Your task to perform on an android device: Search for Italian restaurants on Maps Image 0: 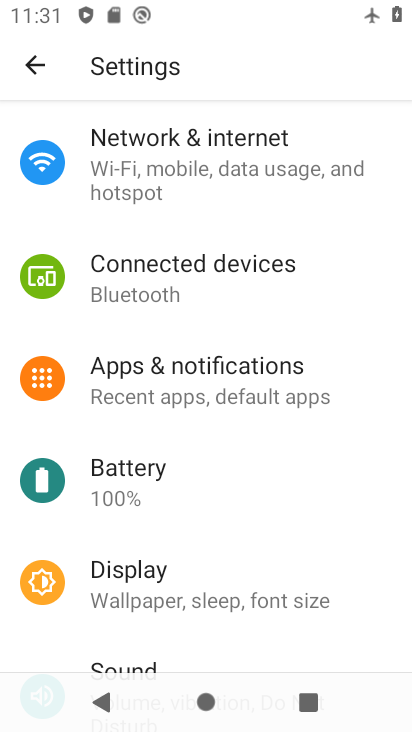
Step 0: press home button
Your task to perform on an android device: Search for Italian restaurants on Maps Image 1: 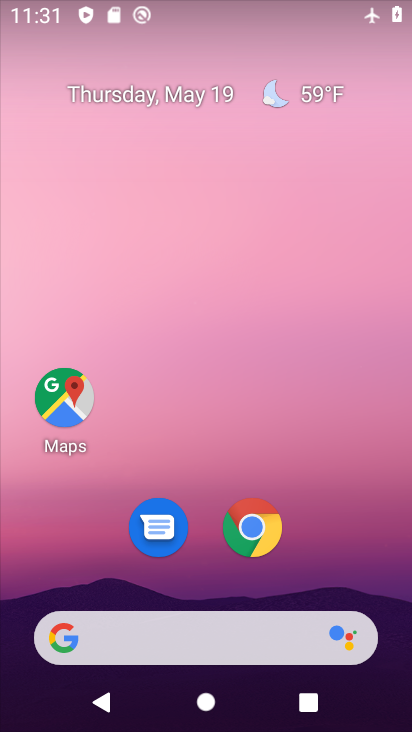
Step 1: click (72, 404)
Your task to perform on an android device: Search for Italian restaurants on Maps Image 2: 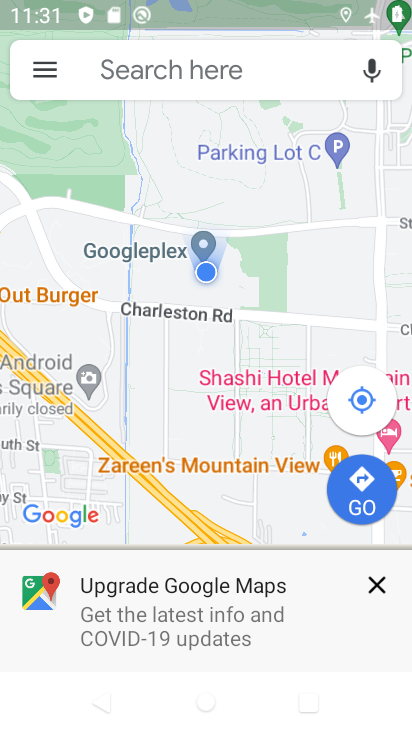
Step 2: click (184, 74)
Your task to perform on an android device: Search for Italian restaurants on Maps Image 3: 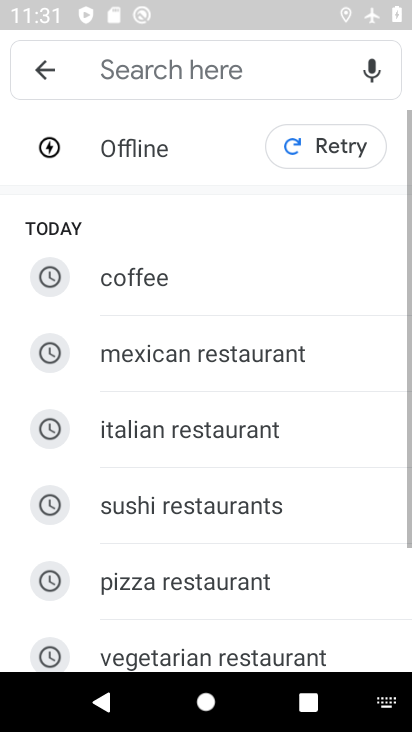
Step 3: click (226, 412)
Your task to perform on an android device: Search for Italian restaurants on Maps Image 4: 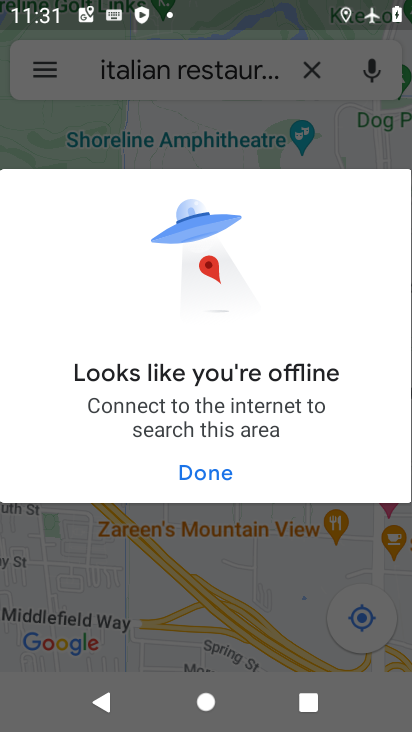
Step 4: task complete